Your task to perform on an android device: Open the phone app and click the voicemail tab. Image 0: 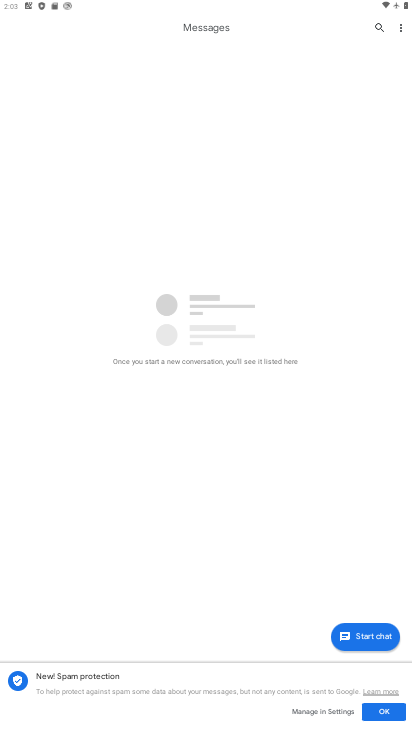
Step 0: press home button
Your task to perform on an android device: Open the phone app and click the voicemail tab. Image 1: 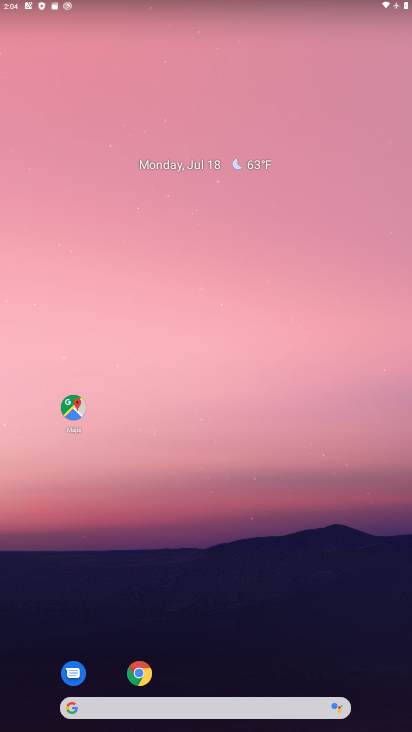
Step 1: drag from (252, 658) to (289, 315)
Your task to perform on an android device: Open the phone app and click the voicemail tab. Image 2: 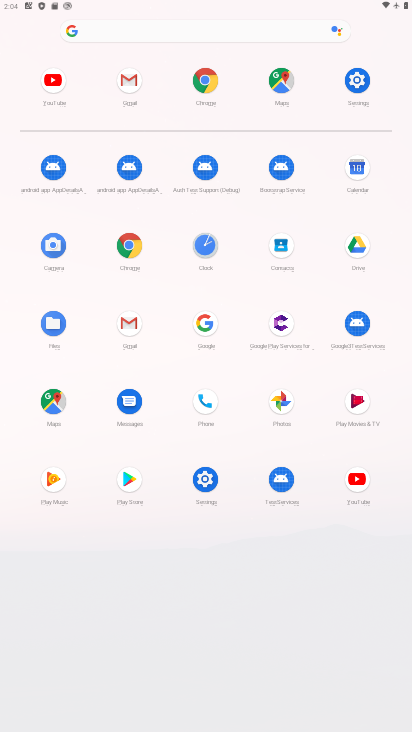
Step 2: click (211, 404)
Your task to perform on an android device: Open the phone app and click the voicemail tab. Image 3: 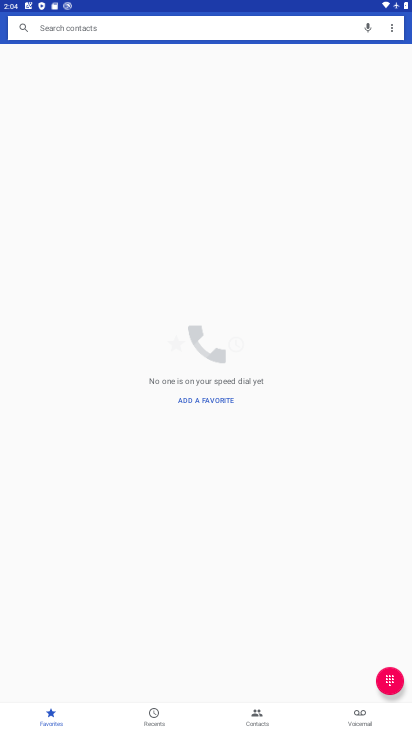
Step 3: click (357, 713)
Your task to perform on an android device: Open the phone app and click the voicemail tab. Image 4: 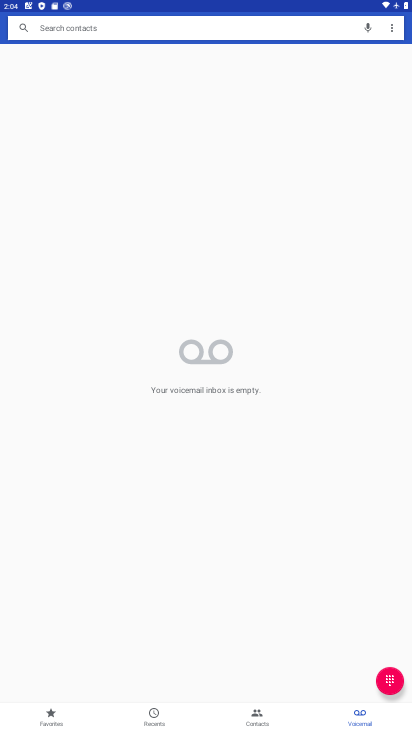
Step 4: task complete